Your task to perform on an android device: Show me popular games on the Play Store Image 0: 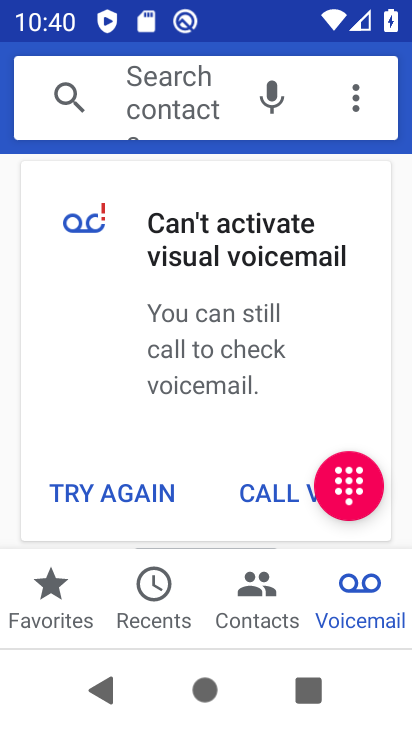
Step 0: press home button
Your task to perform on an android device: Show me popular games on the Play Store Image 1: 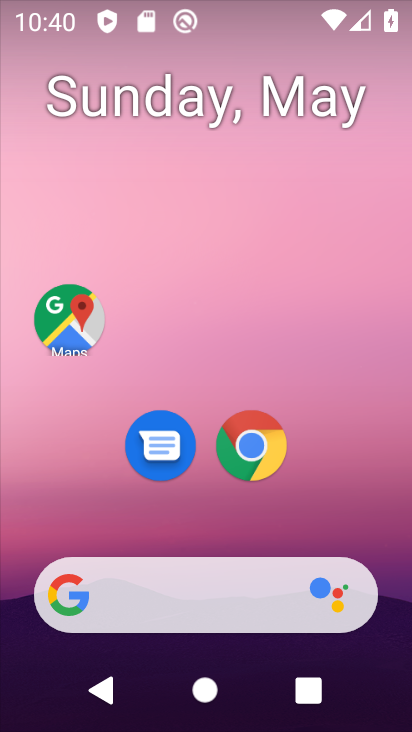
Step 1: drag from (190, 475) to (246, 92)
Your task to perform on an android device: Show me popular games on the Play Store Image 2: 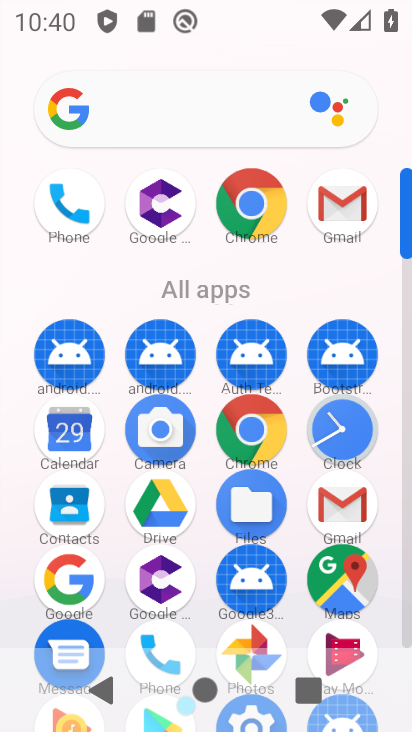
Step 2: drag from (197, 629) to (262, 206)
Your task to perform on an android device: Show me popular games on the Play Store Image 3: 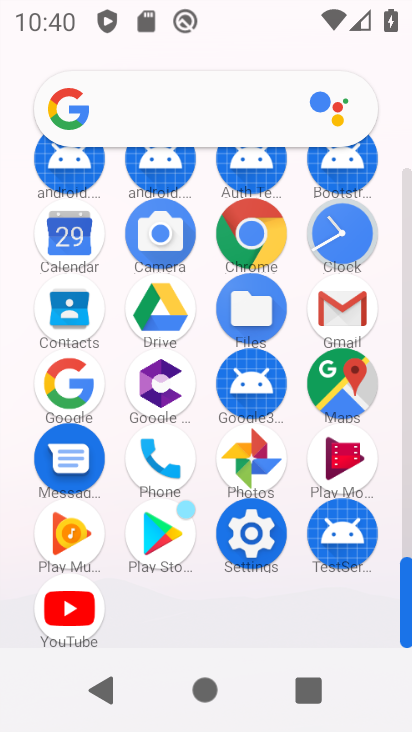
Step 3: click (150, 526)
Your task to perform on an android device: Show me popular games on the Play Store Image 4: 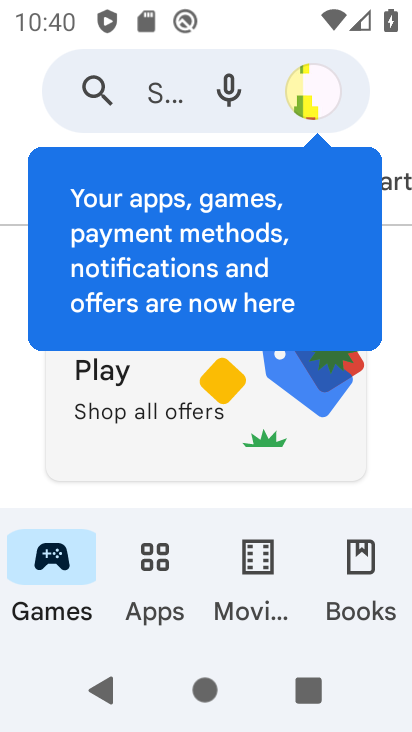
Step 4: drag from (216, 406) to (324, 0)
Your task to perform on an android device: Show me popular games on the Play Store Image 5: 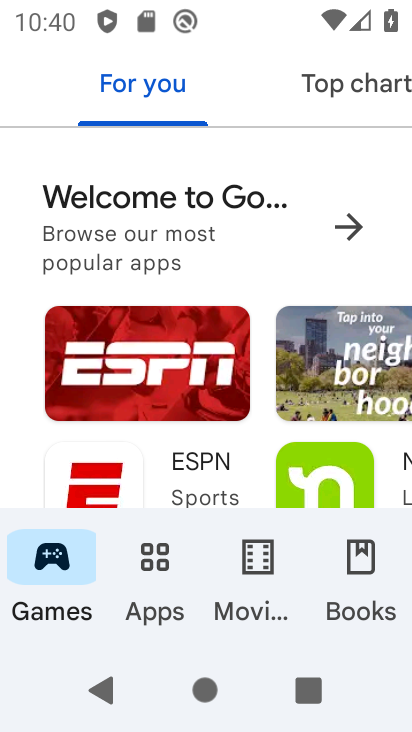
Step 5: drag from (223, 468) to (285, 85)
Your task to perform on an android device: Show me popular games on the Play Store Image 6: 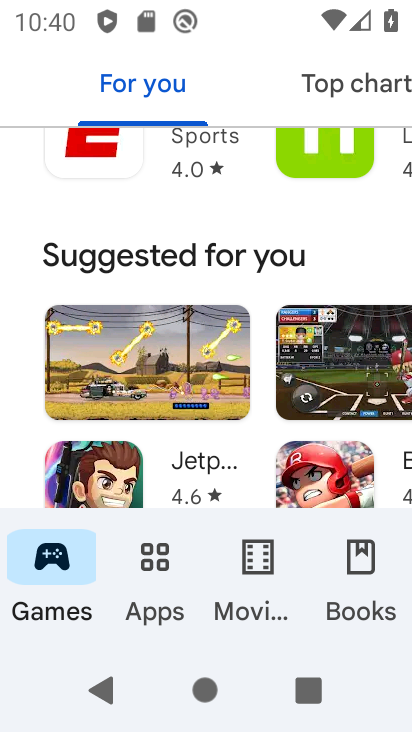
Step 6: drag from (186, 423) to (239, 66)
Your task to perform on an android device: Show me popular games on the Play Store Image 7: 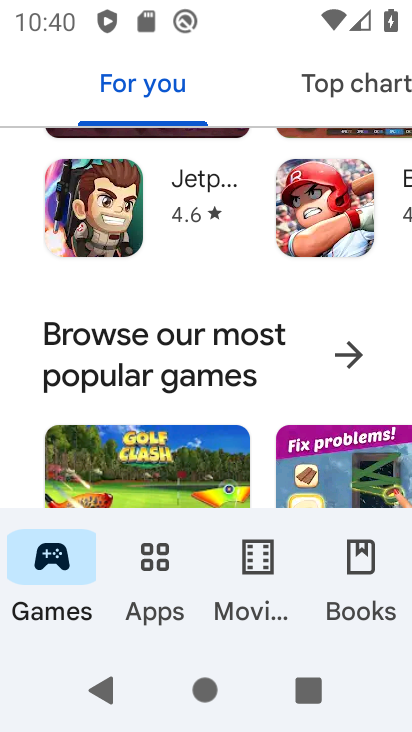
Step 7: click (341, 356)
Your task to perform on an android device: Show me popular games on the Play Store Image 8: 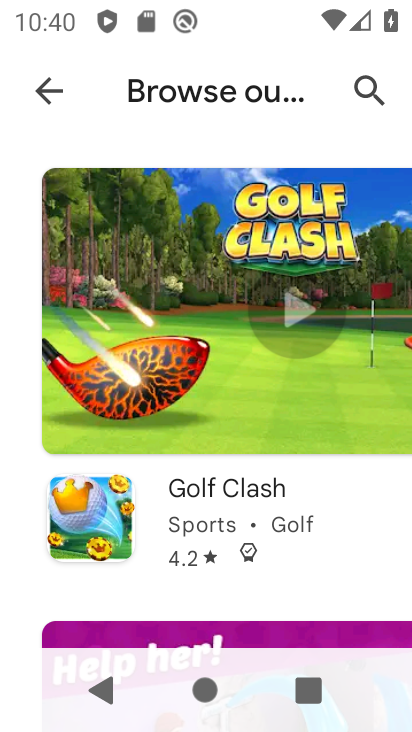
Step 8: task complete